Your task to perform on an android device: Go to location settings Image 0: 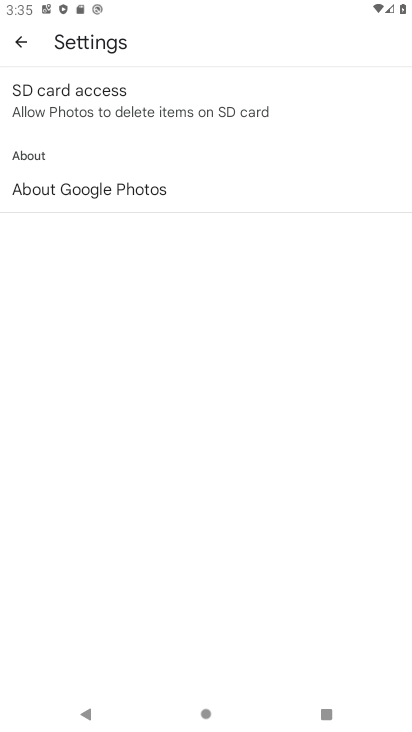
Step 0: press home button
Your task to perform on an android device: Go to location settings Image 1: 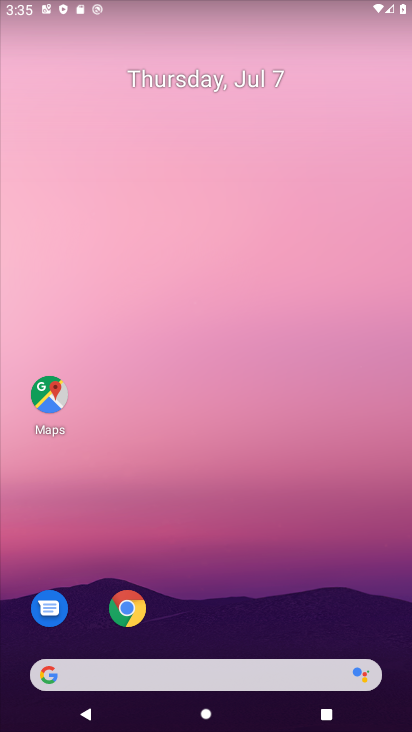
Step 1: drag from (382, 618) to (336, 45)
Your task to perform on an android device: Go to location settings Image 2: 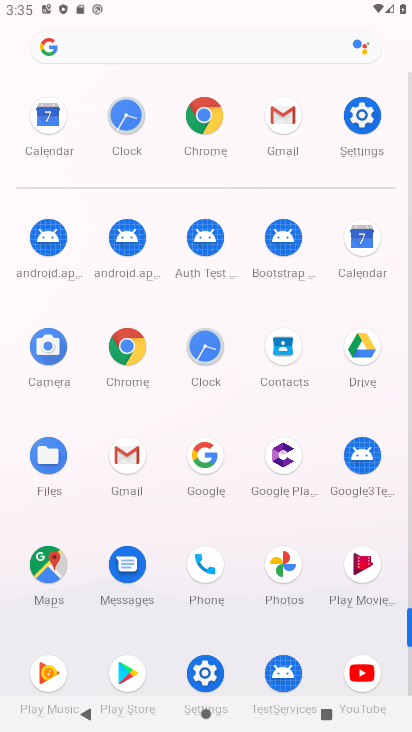
Step 2: click (204, 673)
Your task to perform on an android device: Go to location settings Image 3: 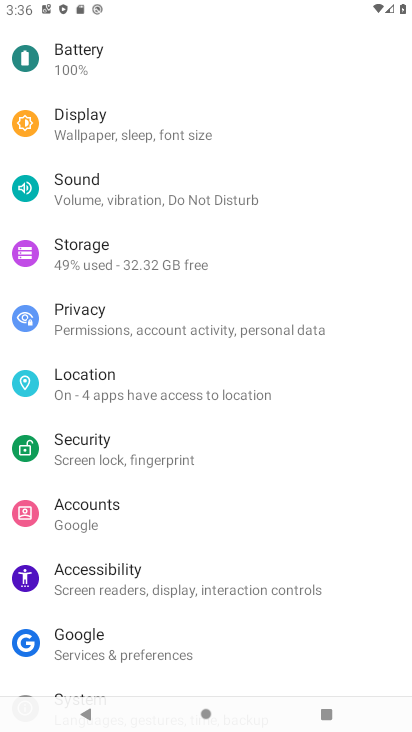
Step 3: click (102, 388)
Your task to perform on an android device: Go to location settings Image 4: 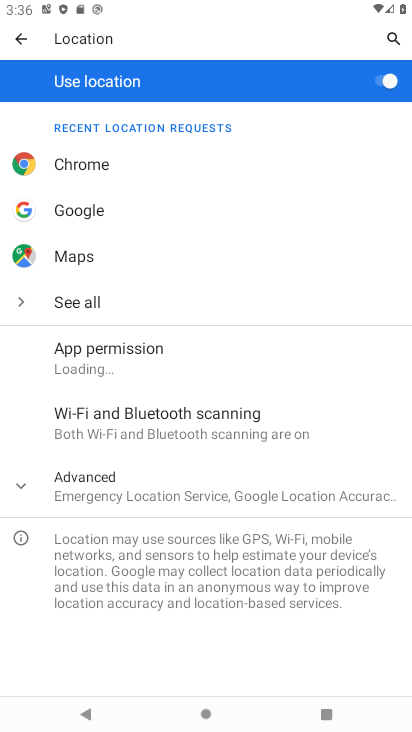
Step 4: click (14, 490)
Your task to perform on an android device: Go to location settings Image 5: 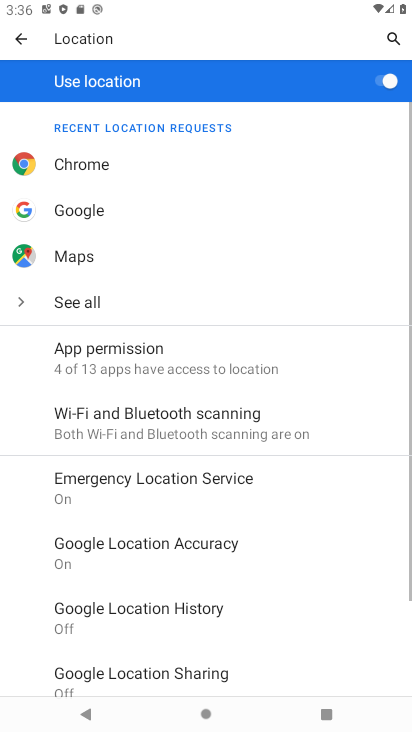
Step 5: task complete